Your task to perform on an android device: Open Reddit.com Image 0: 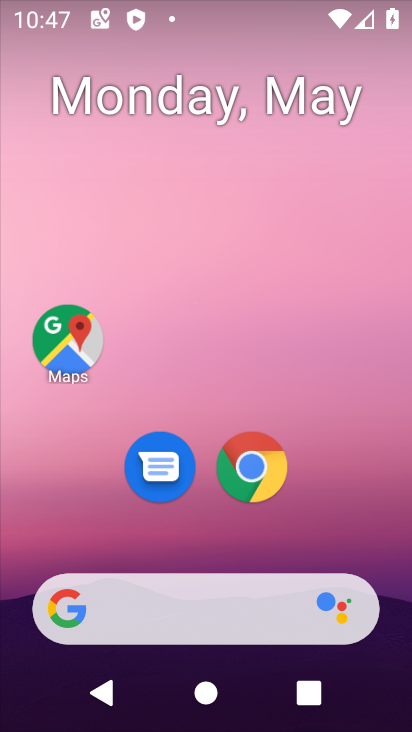
Step 0: click (252, 463)
Your task to perform on an android device: Open Reddit.com Image 1: 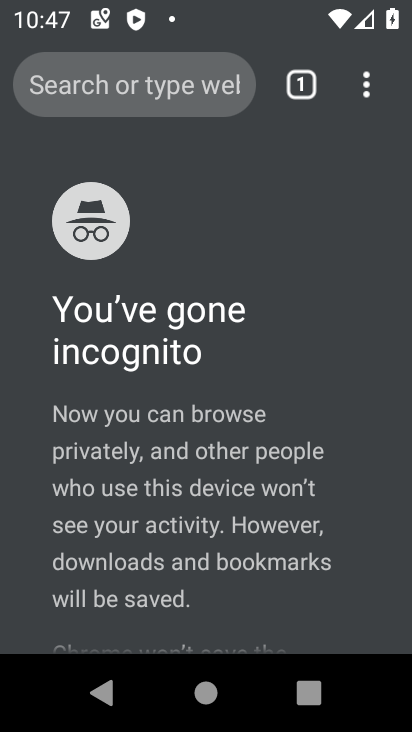
Step 1: click (233, 85)
Your task to perform on an android device: Open Reddit.com Image 2: 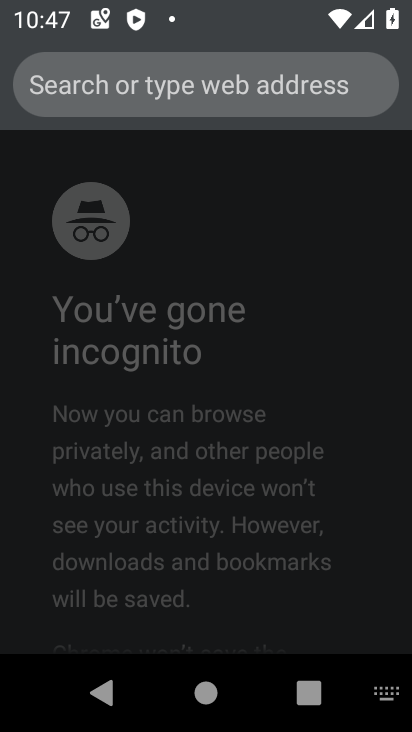
Step 2: type "Reddit.com"
Your task to perform on an android device: Open Reddit.com Image 3: 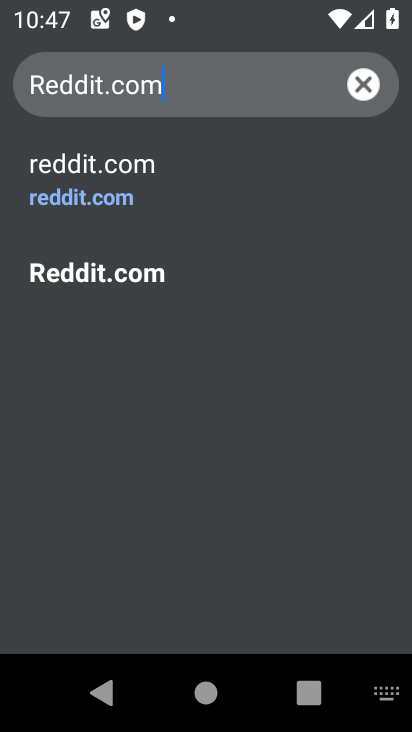
Step 3: click (68, 183)
Your task to perform on an android device: Open Reddit.com Image 4: 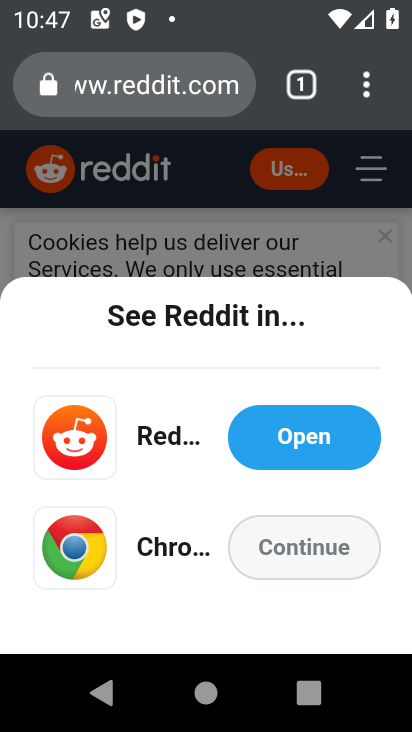
Step 4: drag from (210, 599) to (219, 329)
Your task to perform on an android device: Open Reddit.com Image 5: 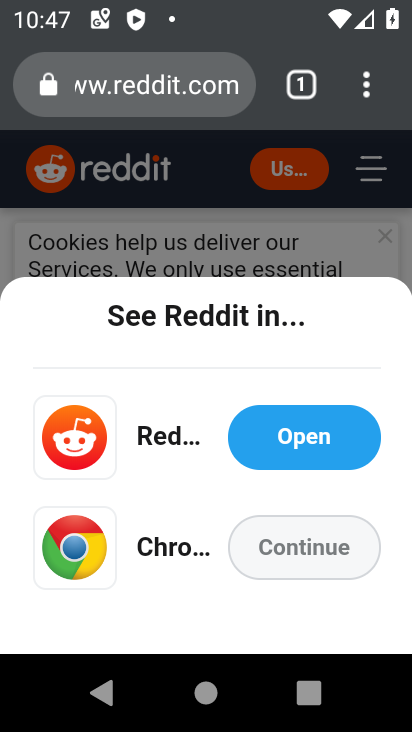
Step 5: press back button
Your task to perform on an android device: Open Reddit.com Image 6: 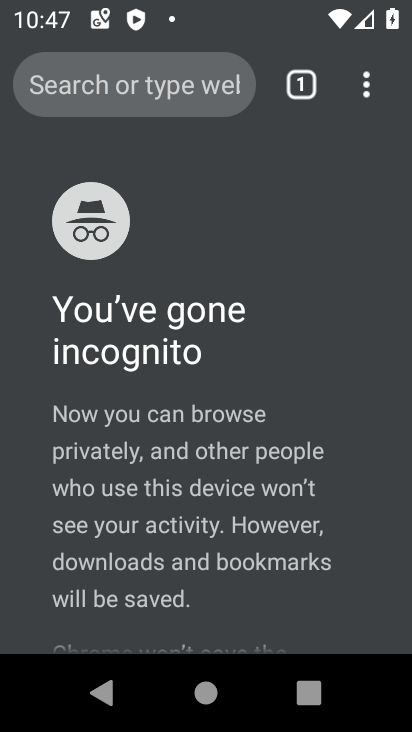
Step 6: click (142, 88)
Your task to perform on an android device: Open Reddit.com Image 7: 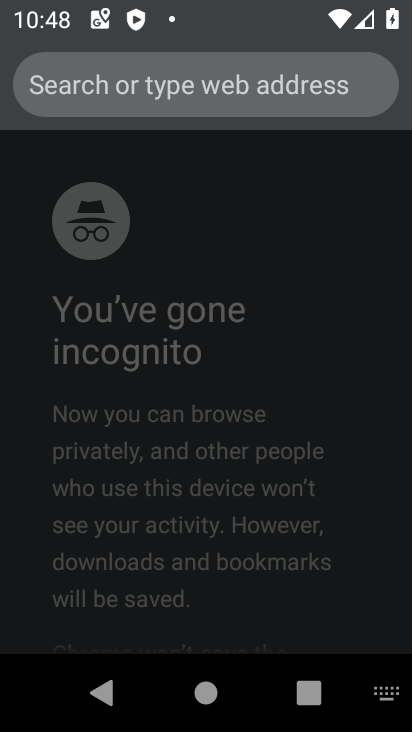
Step 7: type "Reddit.com"
Your task to perform on an android device: Open Reddit.com Image 8: 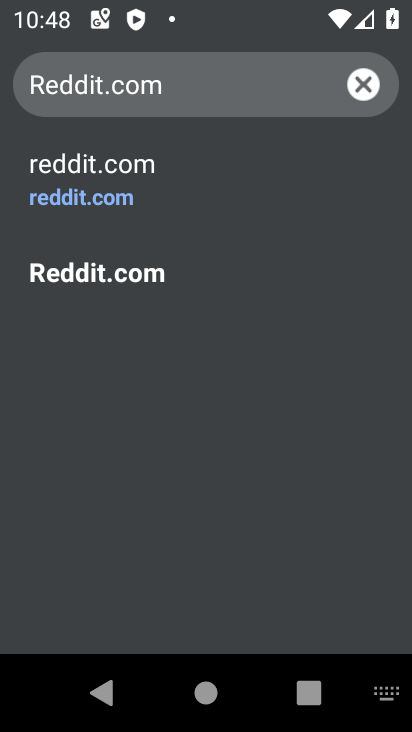
Step 8: click (70, 277)
Your task to perform on an android device: Open Reddit.com Image 9: 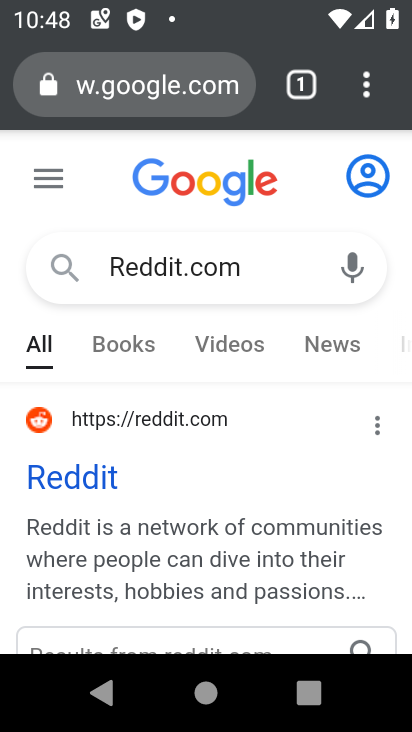
Step 9: task complete